Your task to perform on an android device: Go to privacy settings Image 0: 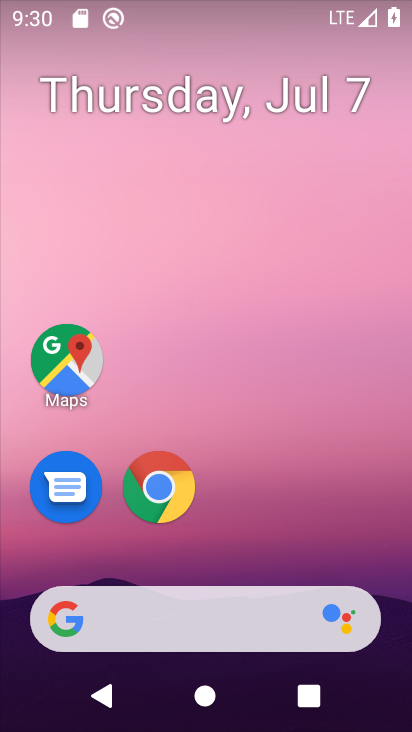
Step 0: drag from (373, 544) to (370, 108)
Your task to perform on an android device: Go to privacy settings Image 1: 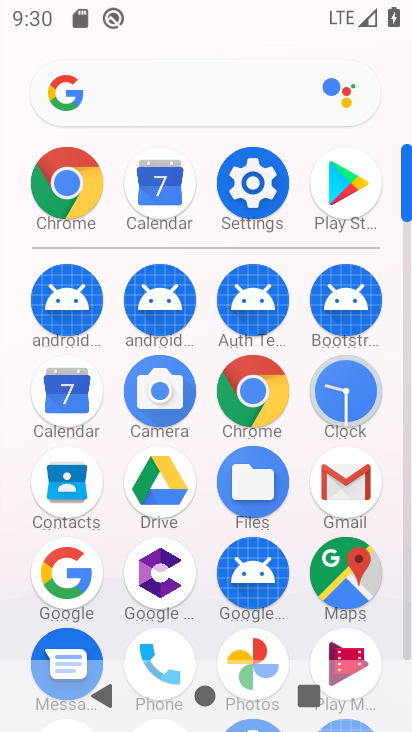
Step 1: click (263, 186)
Your task to perform on an android device: Go to privacy settings Image 2: 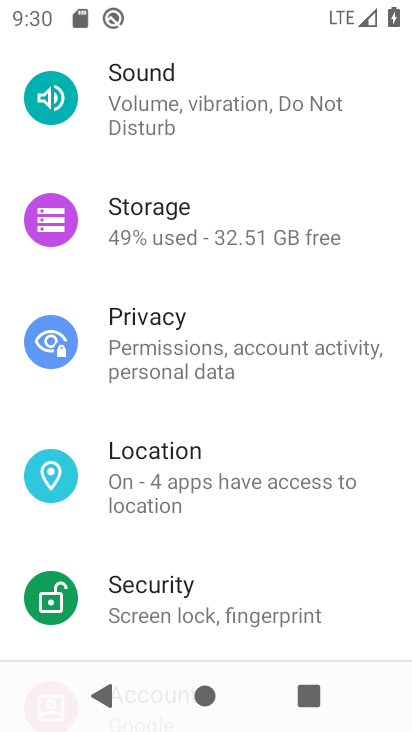
Step 2: drag from (337, 164) to (339, 312)
Your task to perform on an android device: Go to privacy settings Image 3: 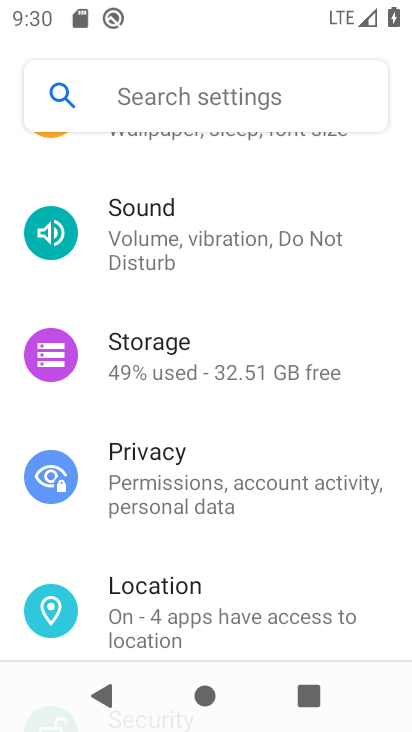
Step 3: drag from (370, 172) to (379, 379)
Your task to perform on an android device: Go to privacy settings Image 4: 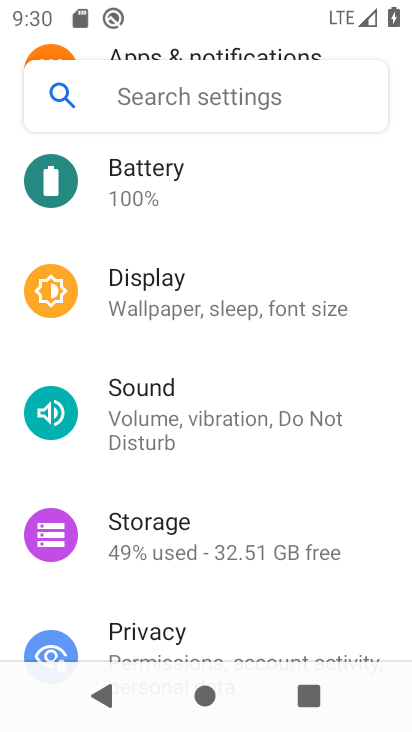
Step 4: drag from (354, 174) to (350, 385)
Your task to perform on an android device: Go to privacy settings Image 5: 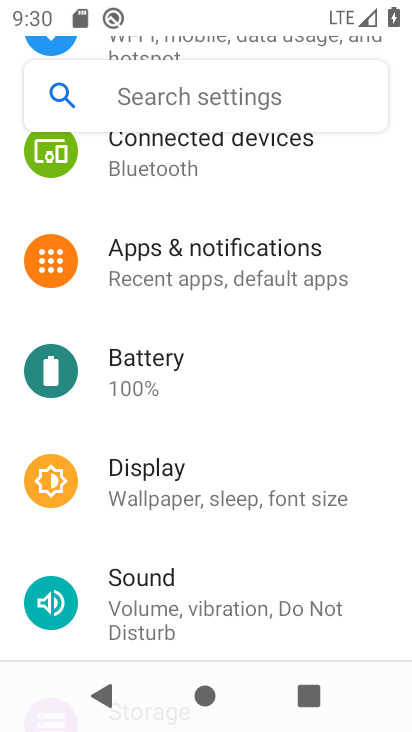
Step 5: drag from (353, 166) to (362, 408)
Your task to perform on an android device: Go to privacy settings Image 6: 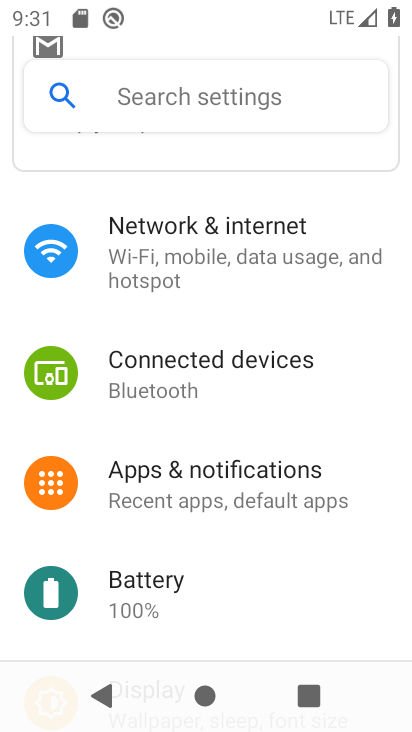
Step 6: drag from (348, 200) to (354, 440)
Your task to perform on an android device: Go to privacy settings Image 7: 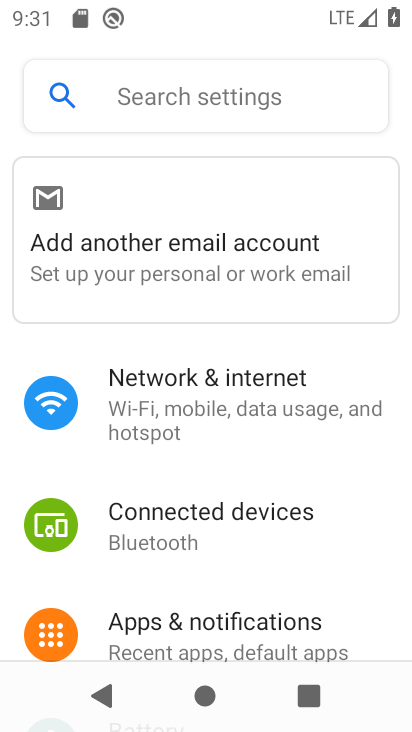
Step 7: drag from (346, 476) to (356, 326)
Your task to perform on an android device: Go to privacy settings Image 8: 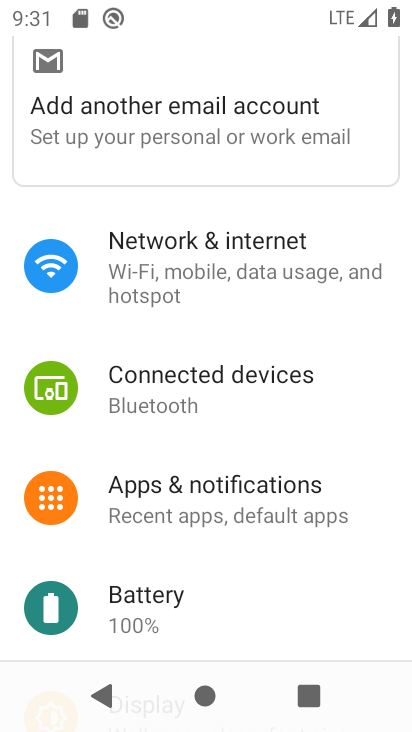
Step 8: drag from (348, 457) to (351, 325)
Your task to perform on an android device: Go to privacy settings Image 9: 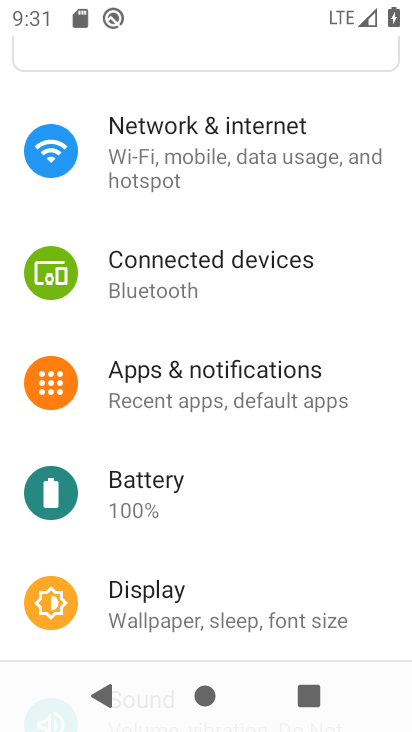
Step 9: drag from (354, 482) to (357, 358)
Your task to perform on an android device: Go to privacy settings Image 10: 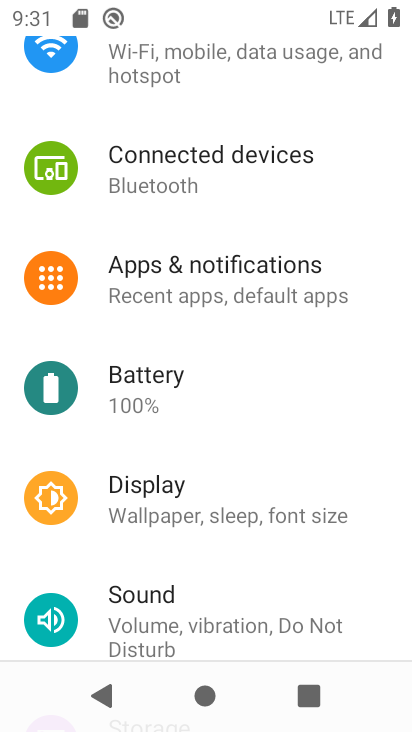
Step 10: drag from (360, 537) to (372, 389)
Your task to perform on an android device: Go to privacy settings Image 11: 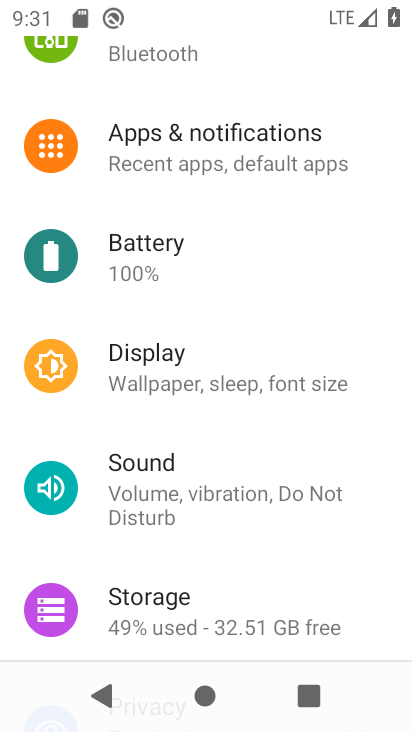
Step 11: drag from (356, 542) to (361, 381)
Your task to perform on an android device: Go to privacy settings Image 12: 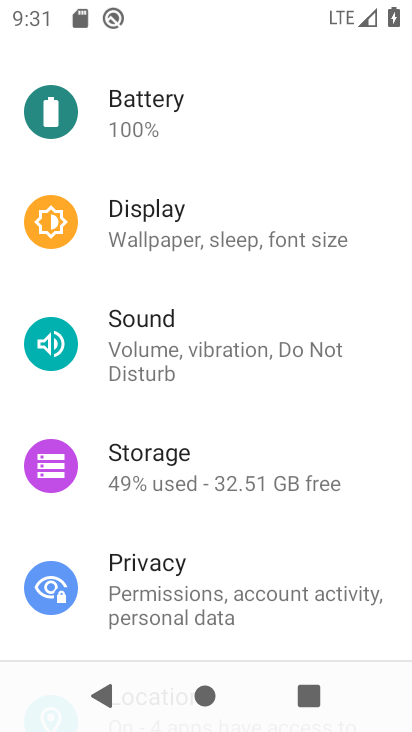
Step 12: drag from (350, 530) to (366, 390)
Your task to perform on an android device: Go to privacy settings Image 13: 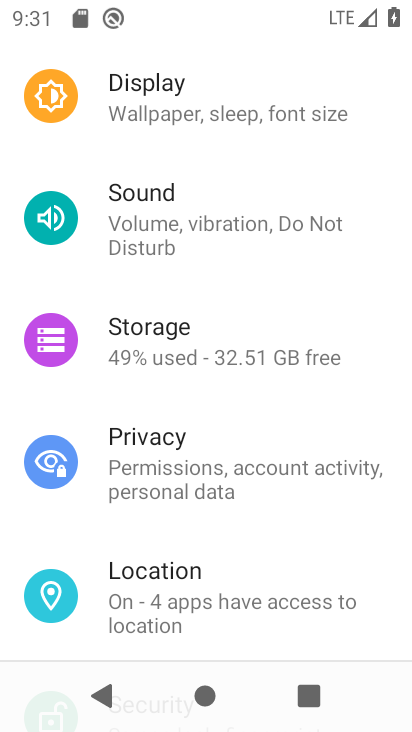
Step 13: drag from (356, 519) to (362, 366)
Your task to perform on an android device: Go to privacy settings Image 14: 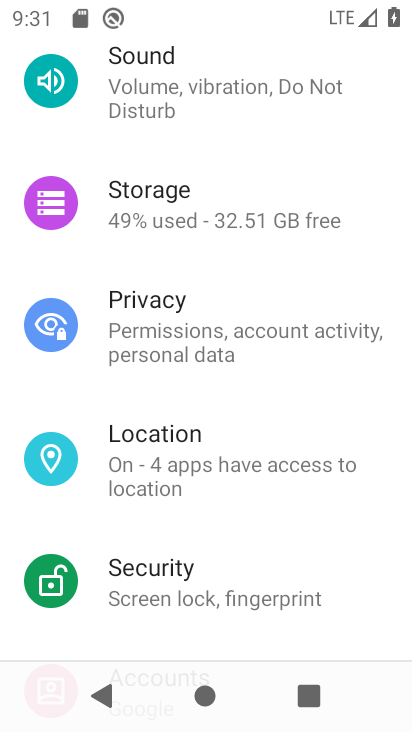
Step 14: click (239, 319)
Your task to perform on an android device: Go to privacy settings Image 15: 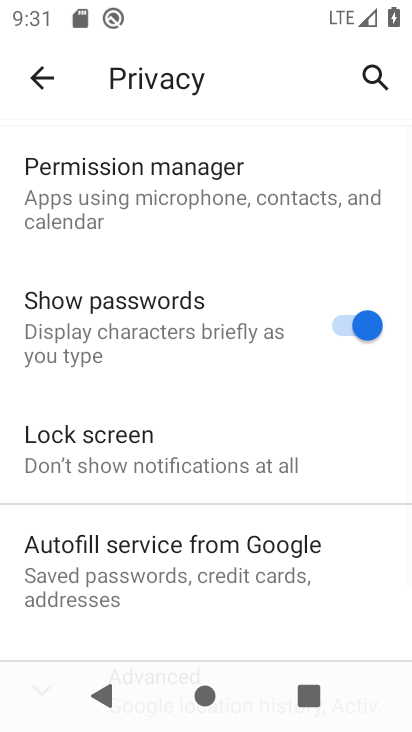
Step 15: drag from (332, 476) to (337, 324)
Your task to perform on an android device: Go to privacy settings Image 16: 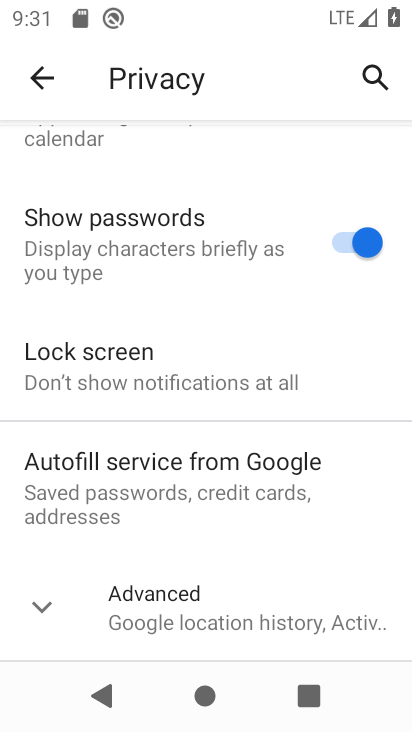
Step 16: click (262, 616)
Your task to perform on an android device: Go to privacy settings Image 17: 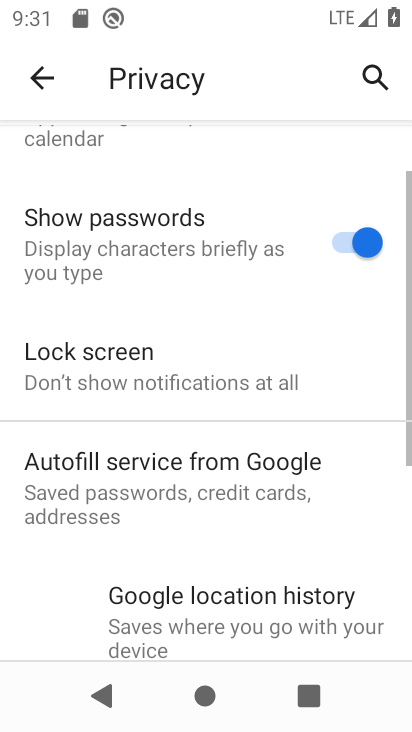
Step 17: task complete